Your task to perform on an android device: install app "eBay: The shopping marketplace" Image 0: 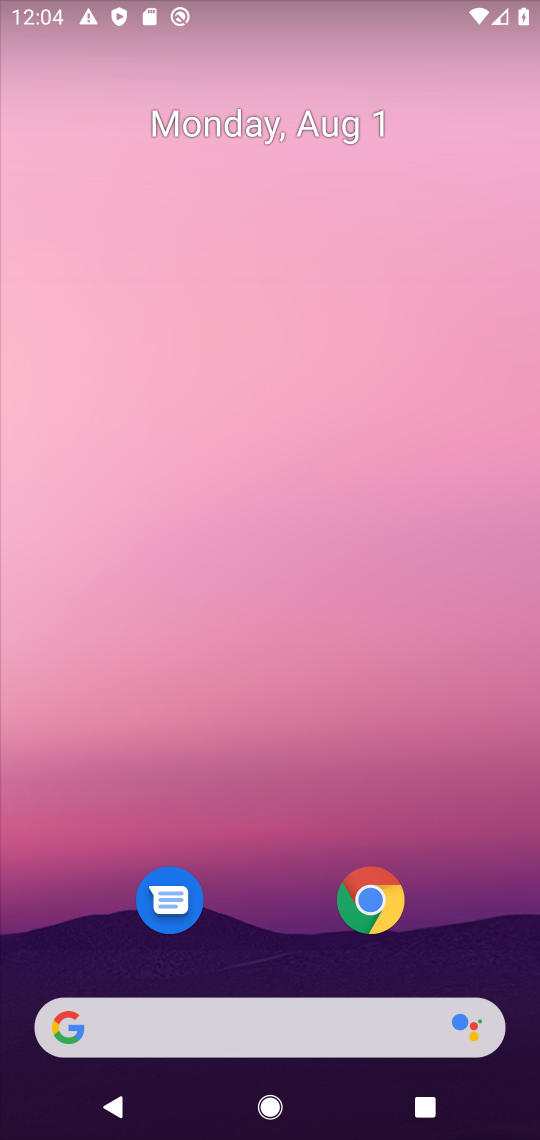
Step 0: drag from (238, 1007) to (238, 157)
Your task to perform on an android device: install app "eBay: The shopping marketplace" Image 1: 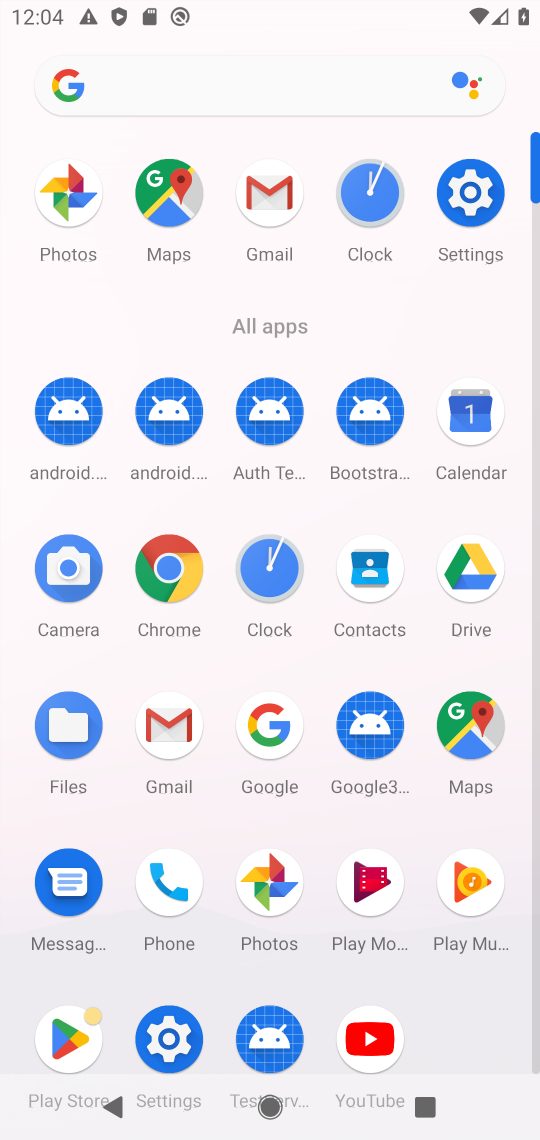
Step 1: click (63, 1036)
Your task to perform on an android device: install app "eBay: The shopping marketplace" Image 2: 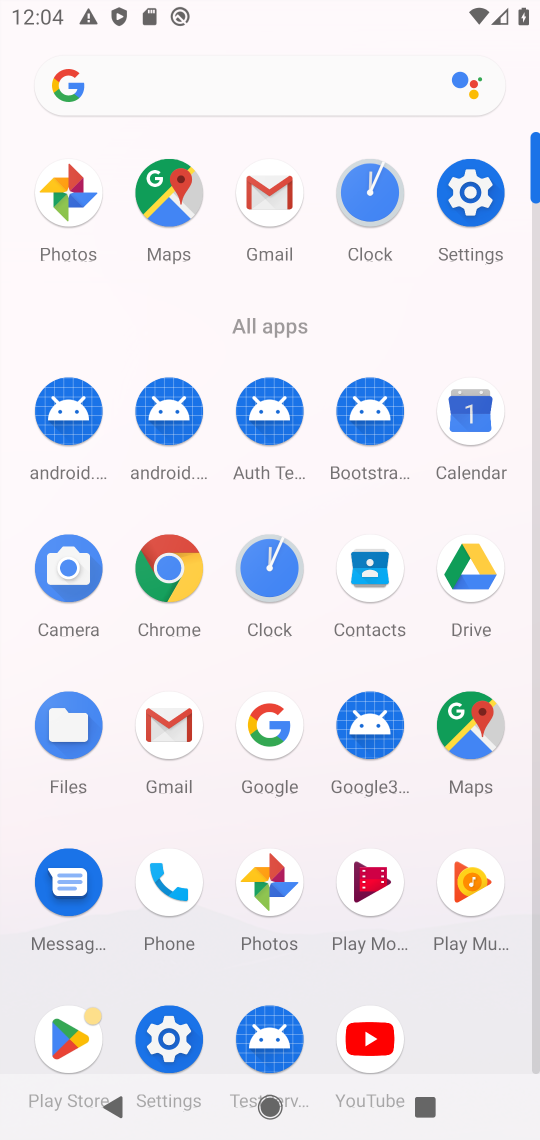
Step 2: click (76, 1050)
Your task to perform on an android device: install app "eBay: The shopping marketplace" Image 3: 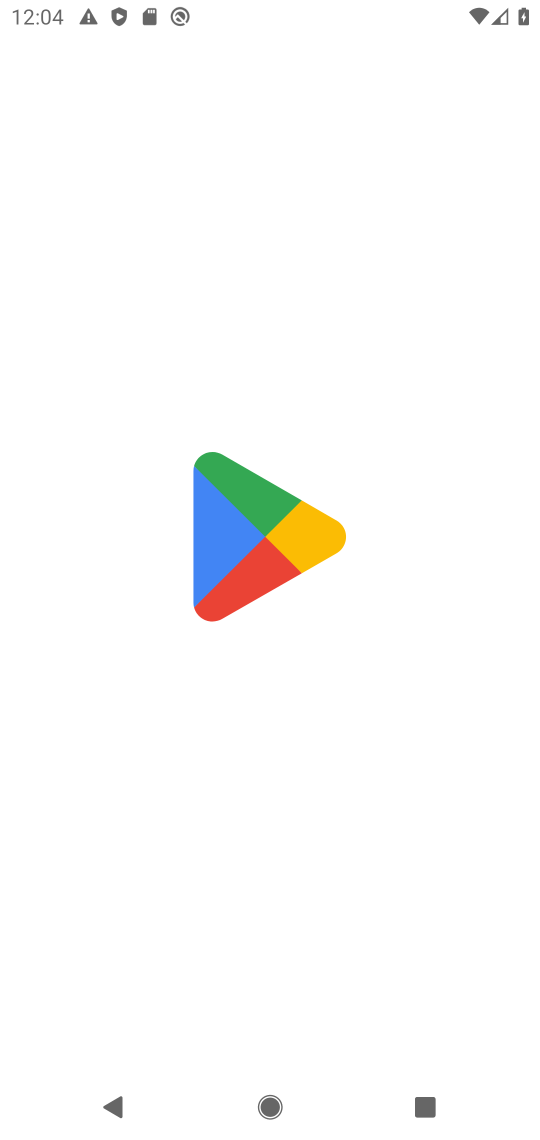
Step 3: click (74, 1049)
Your task to perform on an android device: install app "eBay: The shopping marketplace" Image 4: 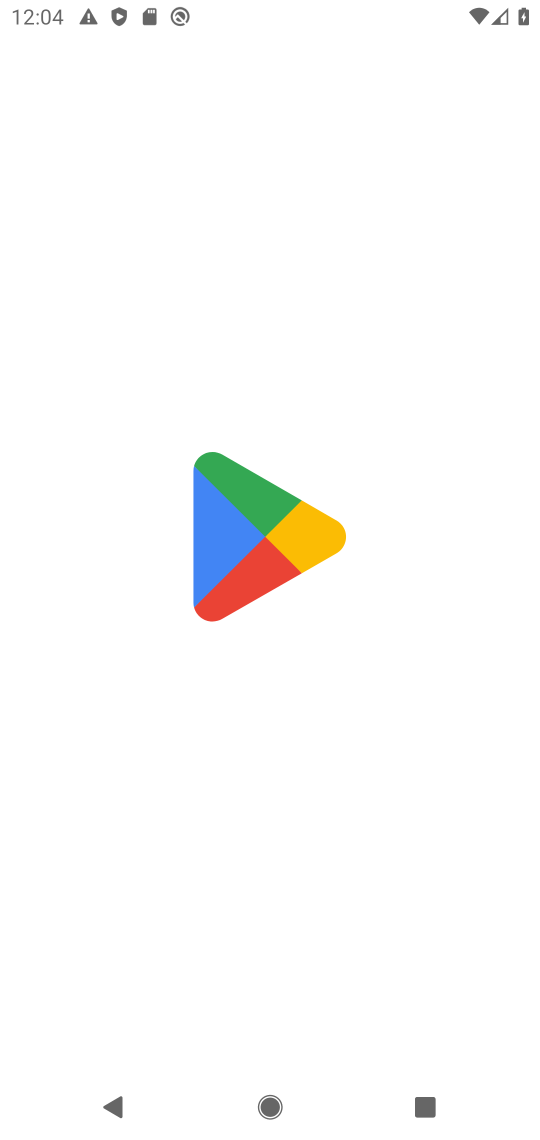
Step 4: click (74, 1049)
Your task to perform on an android device: install app "eBay: The shopping marketplace" Image 5: 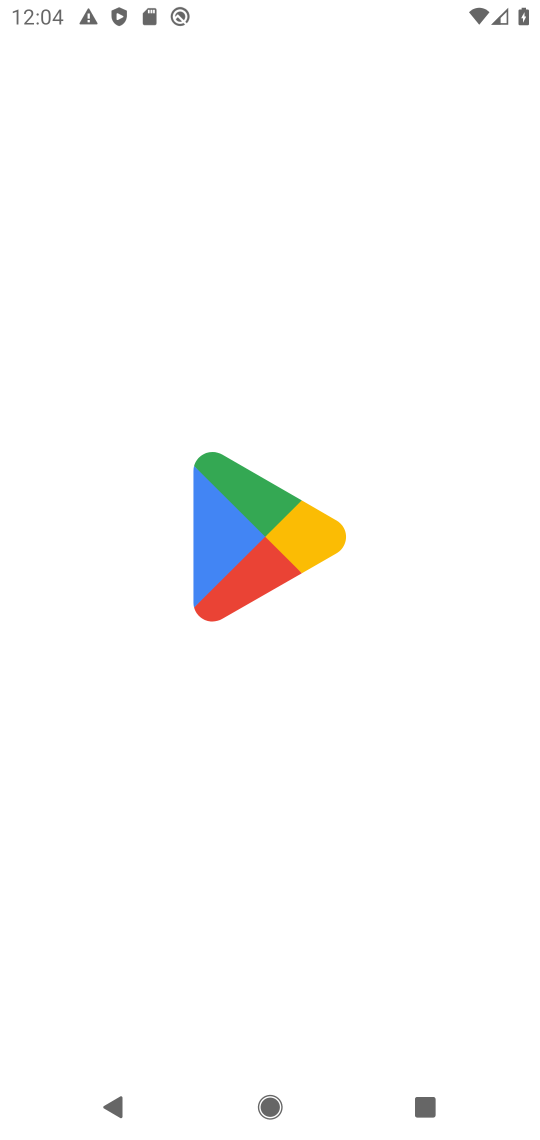
Step 5: click (73, 1048)
Your task to perform on an android device: install app "eBay: The shopping marketplace" Image 6: 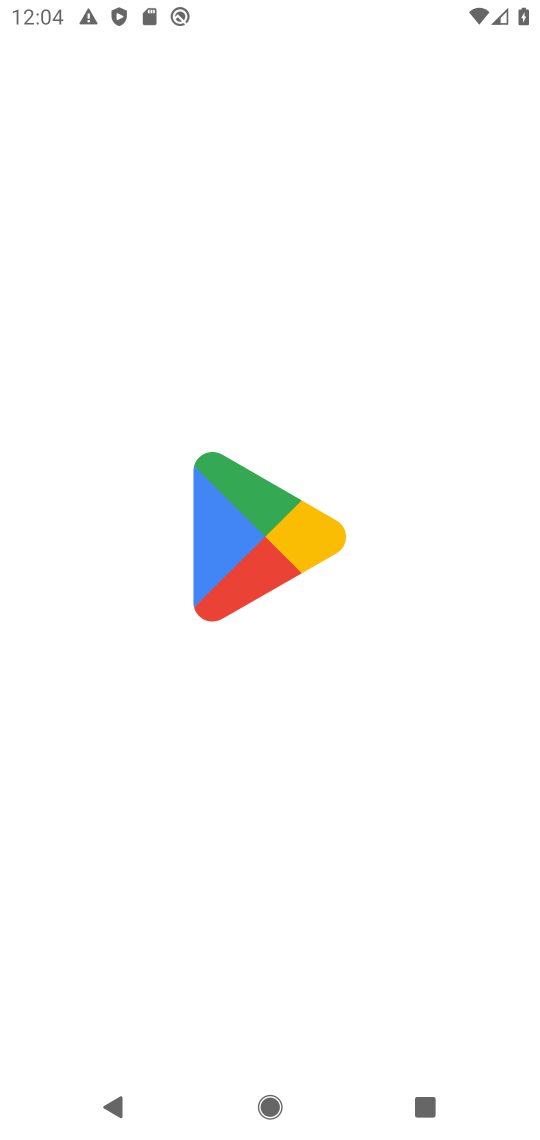
Step 6: click (71, 1049)
Your task to perform on an android device: install app "eBay: The shopping marketplace" Image 7: 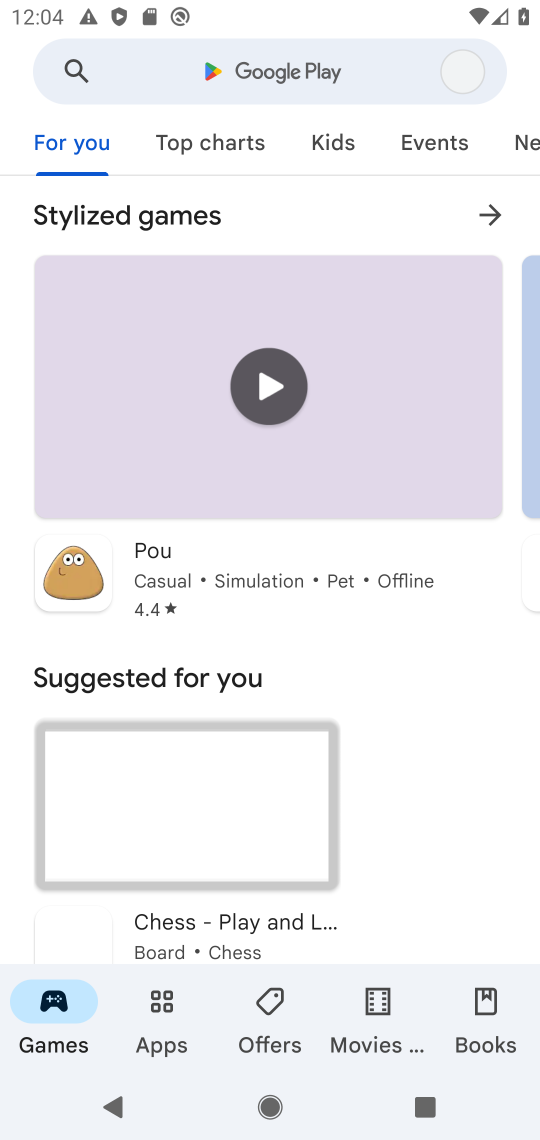
Step 7: click (261, 62)
Your task to perform on an android device: install app "eBay: The shopping marketplace" Image 8: 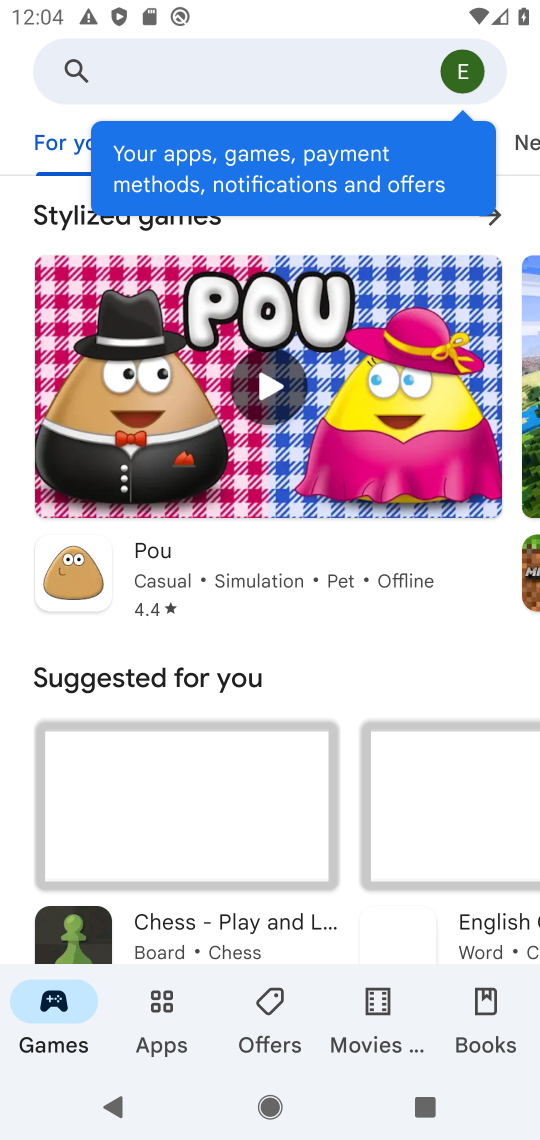
Step 8: click (261, 75)
Your task to perform on an android device: install app "eBay: The shopping marketplace" Image 9: 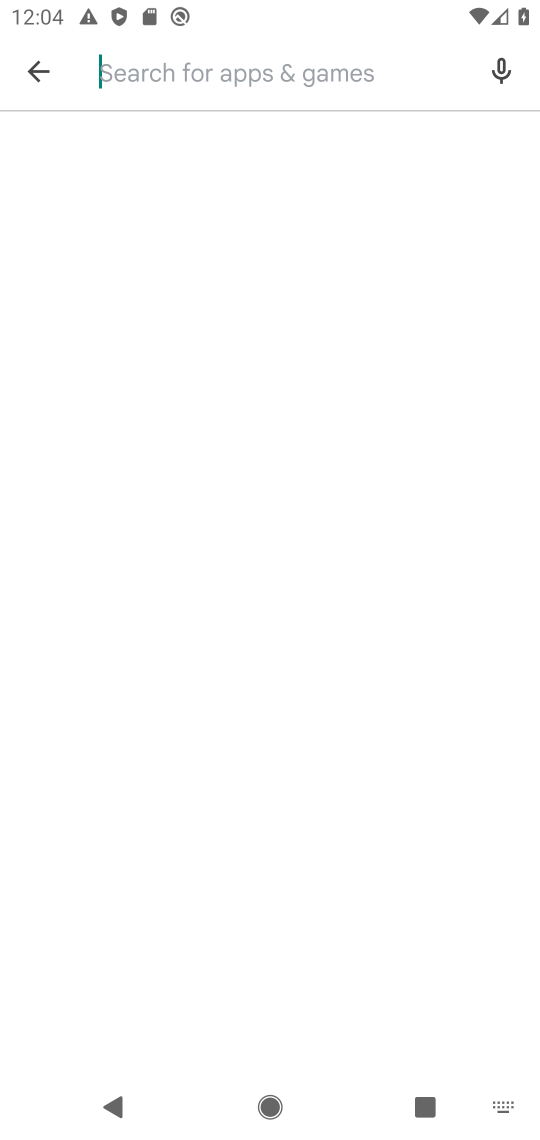
Step 9: click (268, 78)
Your task to perform on an android device: install app "eBay: The shopping marketplace" Image 10: 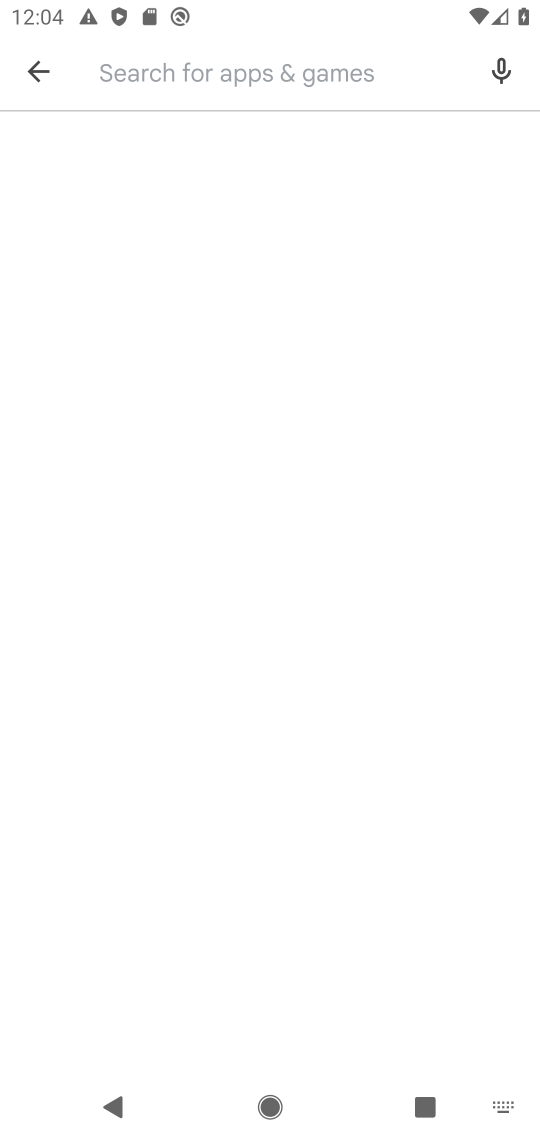
Step 10: click (273, 66)
Your task to perform on an android device: install app "eBay: The shopping marketplace" Image 11: 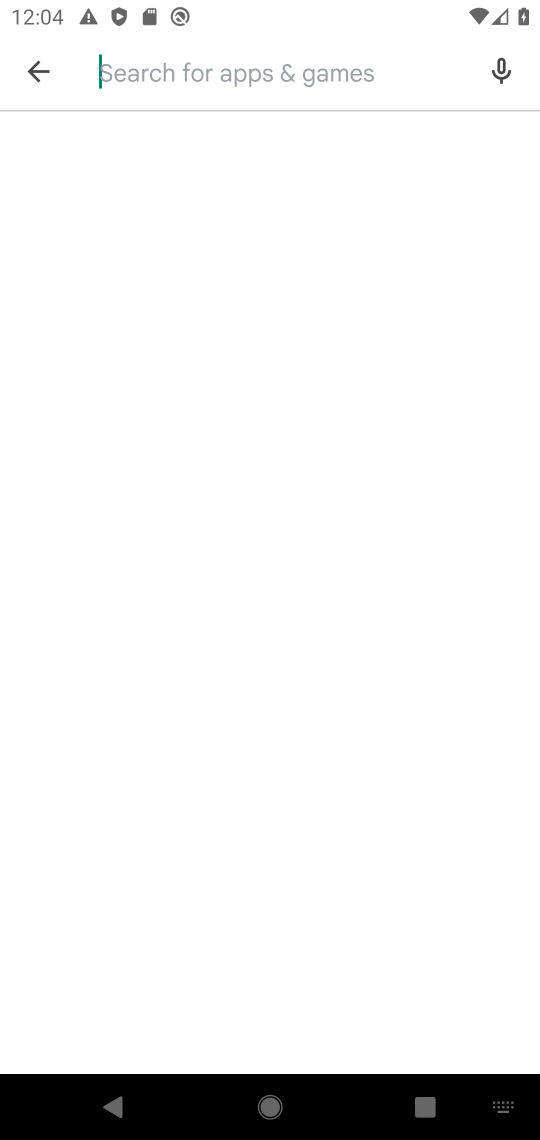
Step 11: click (273, 58)
Your task to perform on an android device: install app "eBay: The shopping marketplace" Image 12: 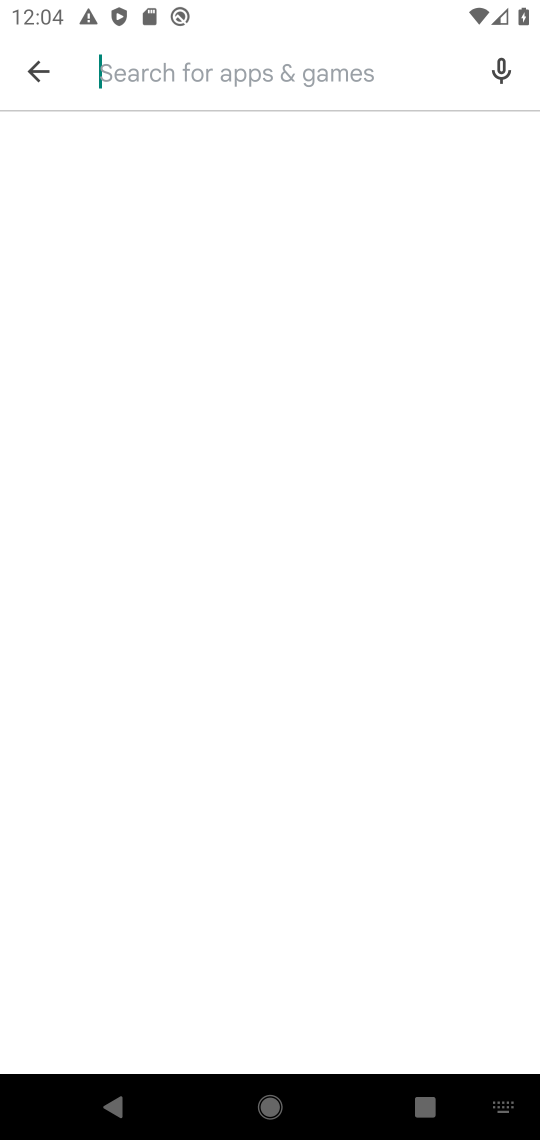
Step 12: click (157, 64)
Your task to perform on an android device: install app "eBay: The shopping marketplace" Image 13: 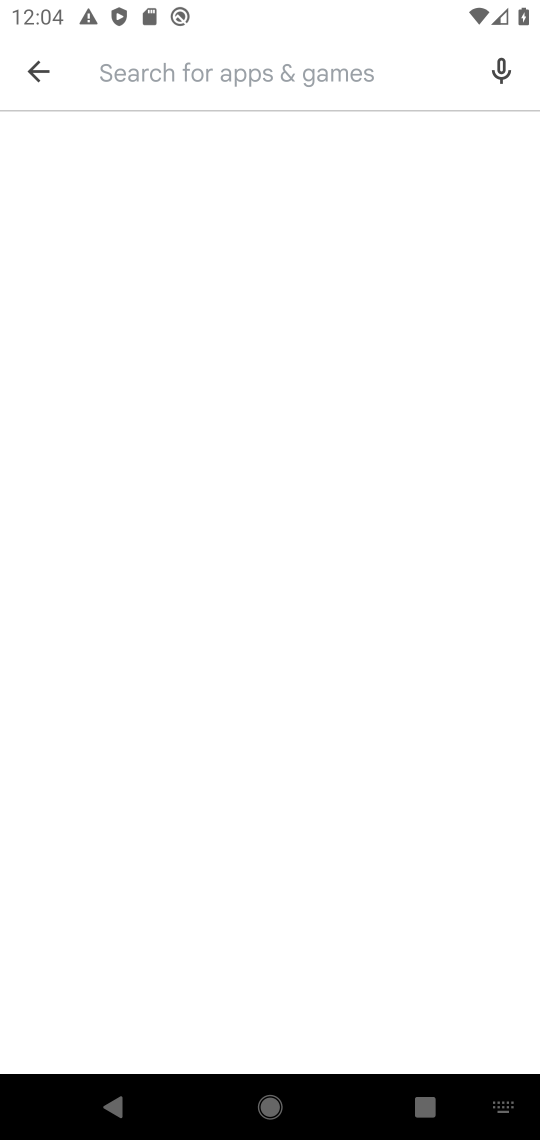
Step 13: click (98, 60)
Your task to perform on an android device: install app "eBay: The shopping marketplace" Image 14: 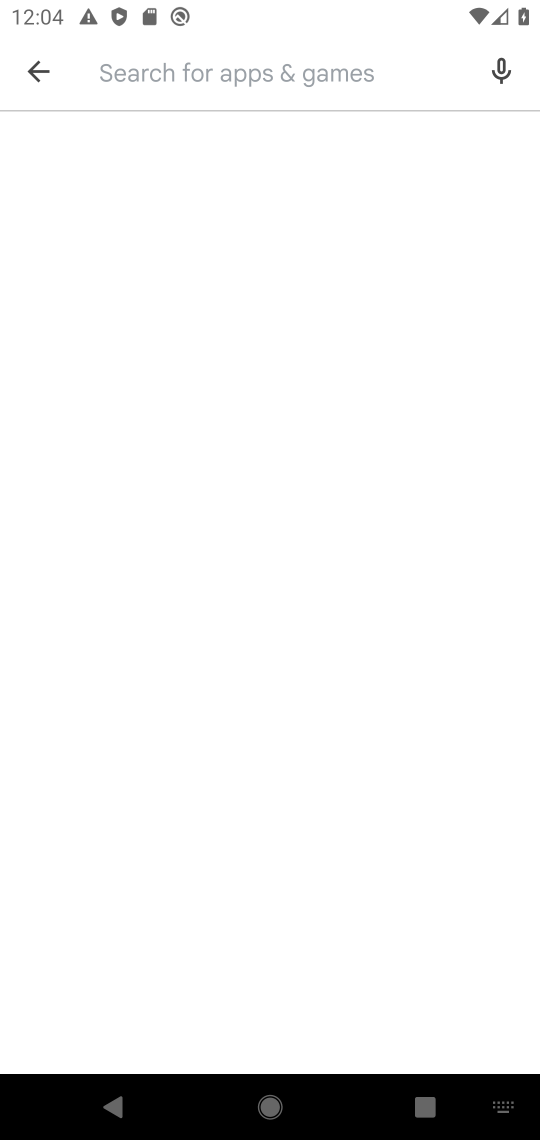
Step 14: type "ebay"
Your task to perform on an android device: install app "eBay: The shopping marketplace" Image 15: 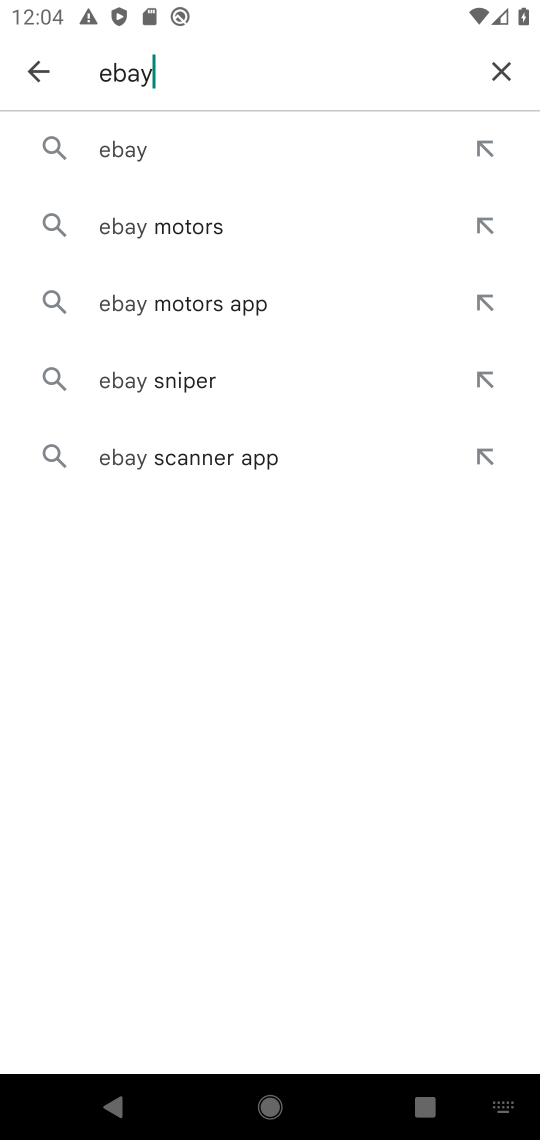
Step 15: click (115, 153)
Your task to perform on an android device: install app "eBay: The shopping marketplace" Image 16: 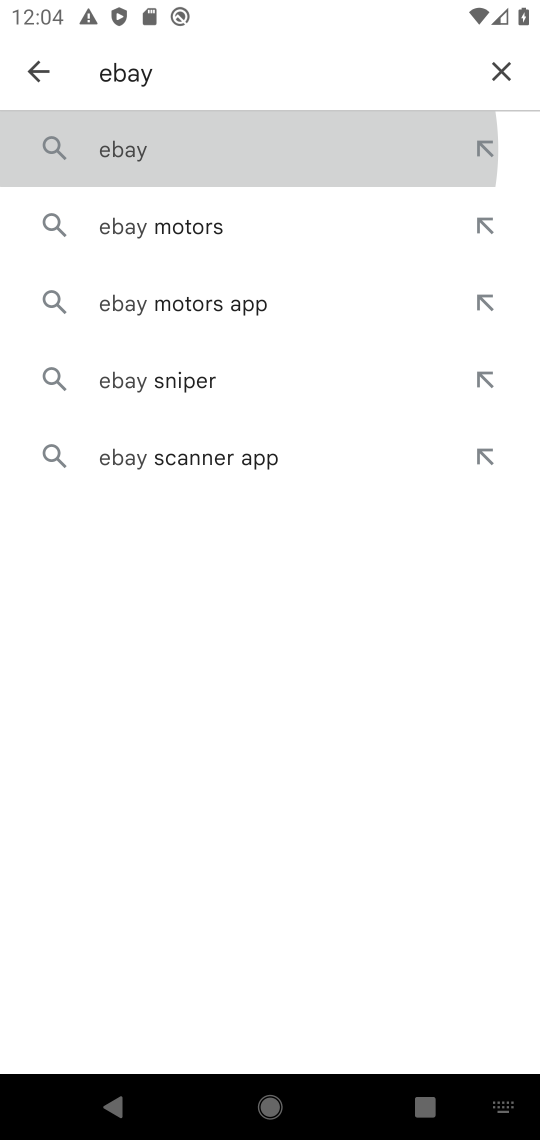
Step 16: click (128, 157)
Your task to perform on an android device: install app "eBay: The shopping marketplace" Image 17: 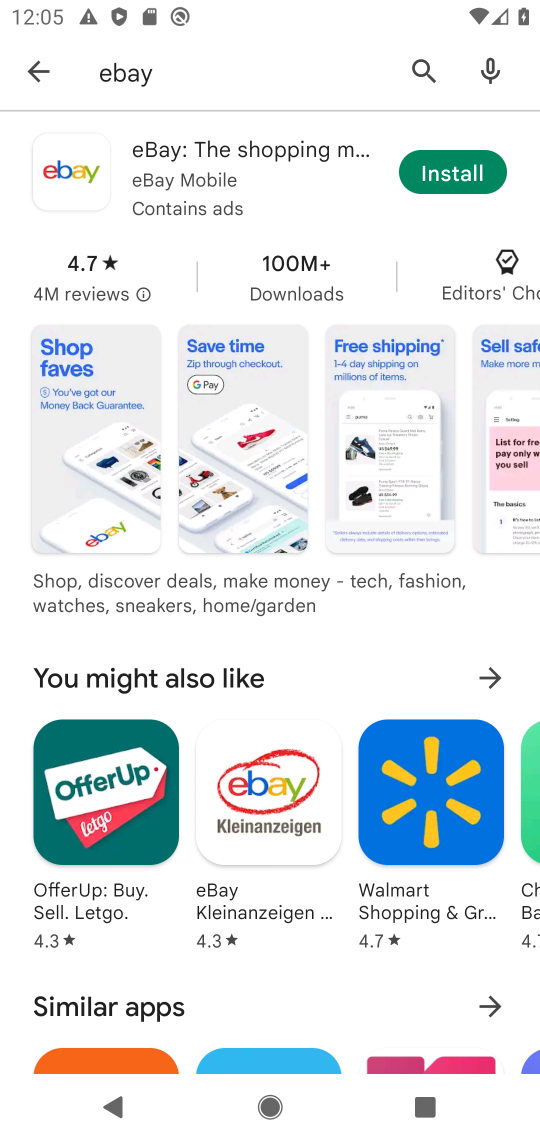
Step 17: click (452, 174)
Your task to perform on an android device: install app "eBay: The shopping marketplace" Image 18: 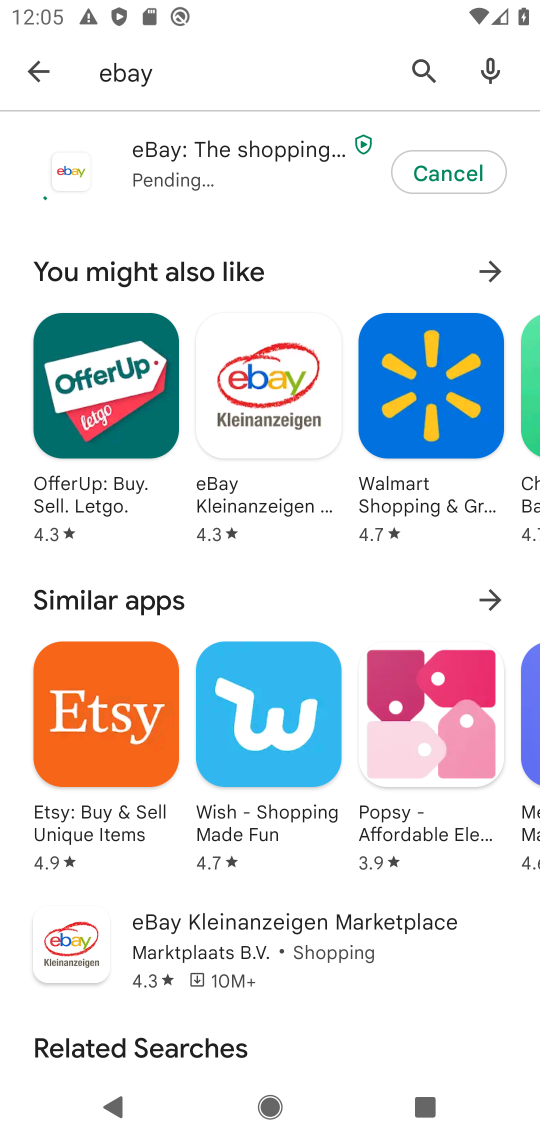
Step 18: task complete